Your task to perform on an android device: turn on improve location accuracy Image 0: 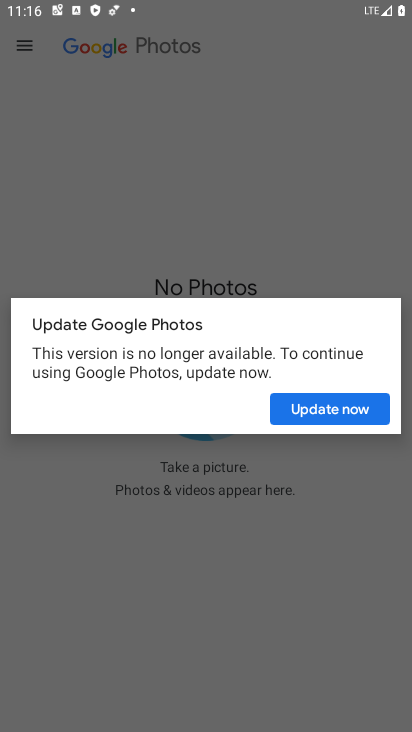
Step 0: press home button
Your task to perform on an android device: turn on improve location accuracy Image 1: 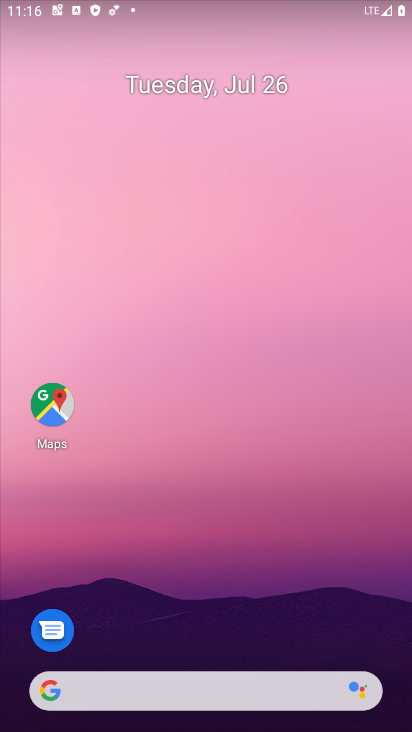
Step 1: drag from (170, 703) to (12, 195)
Your task to perform on an android device: turn on improve location accuracy Image 2: 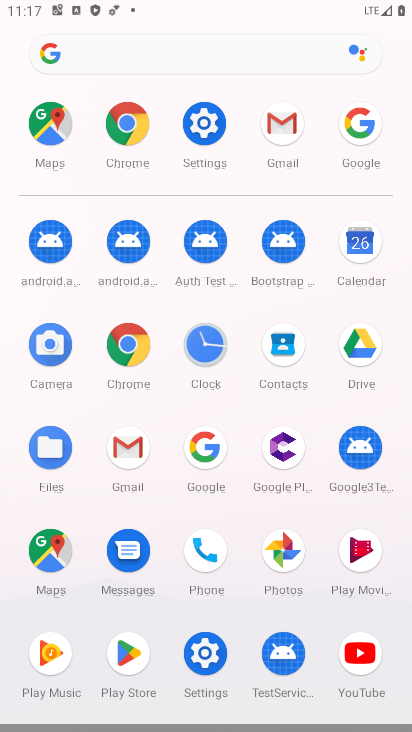
Step 2: click (196, 137)
Your task to perform on an android device: turn on improve location accuracy Image 3: 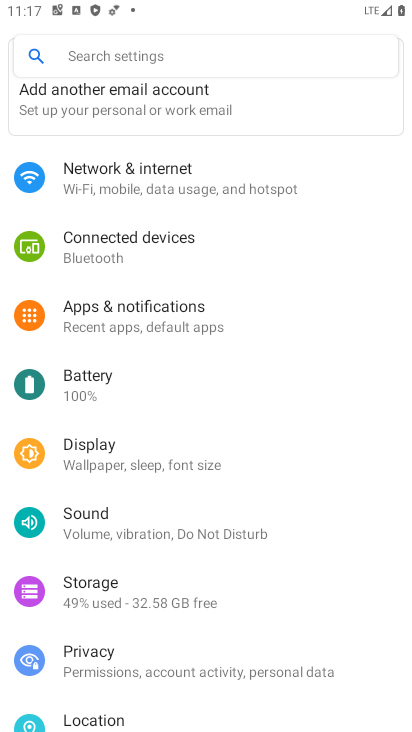
Step 3: drag from (120, 675) to (194, 169)
Your task to perform on an android device: turn on improve location accuracy Image 4: 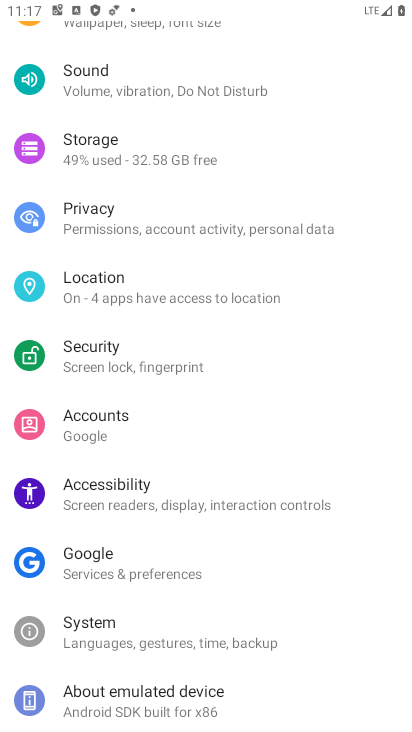
Step 4: click (106, 298)
Your task to perform on an android device: turn on improve location accuracy Image 5: 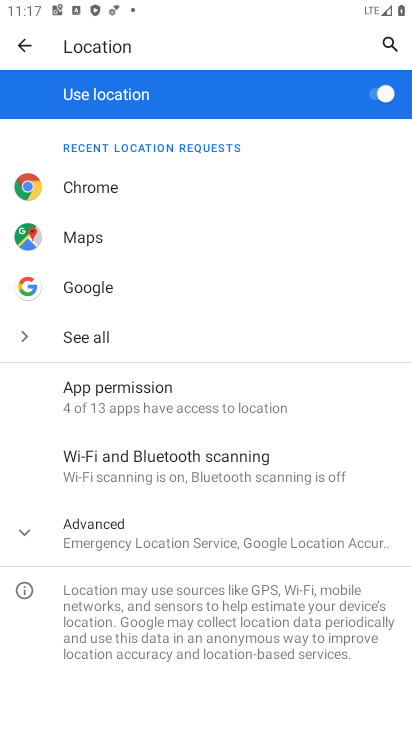
Step 5: click (118, 532)
Your task to perform on an android device: turn on improve location accuracy Image 6: 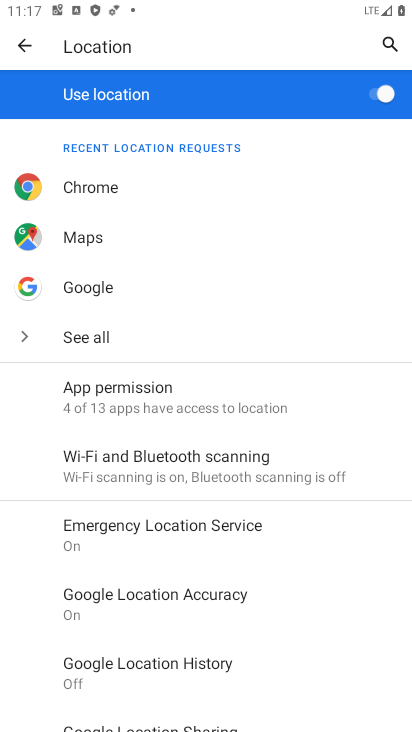
Step 6: drag from (187, 595) to (221, 210)
Your task to perform on an android device: turn on improve location accuracy Image 7: 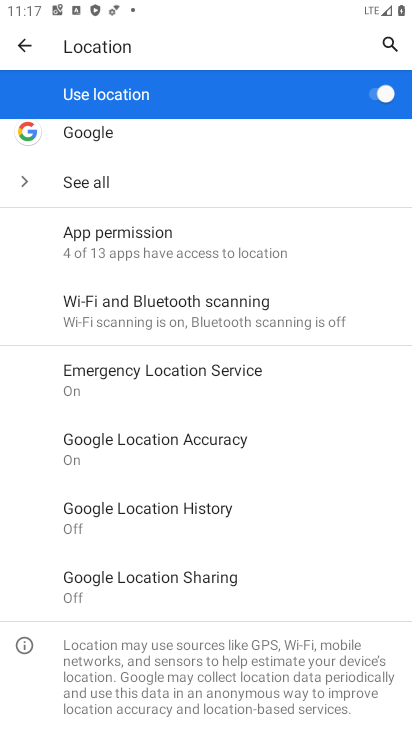
Step 7: click (223, 443)
Your task to perform on an android device: turn on improve location accuracy Image 8: 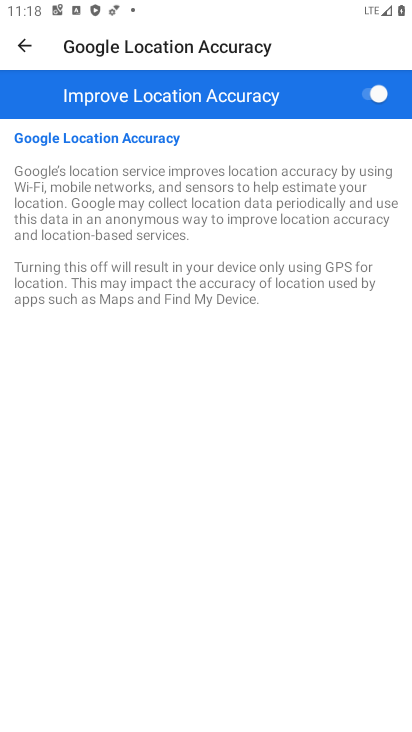
Step 8: task complete